Your task to perform on an android device: Open privacy settings Image 0: 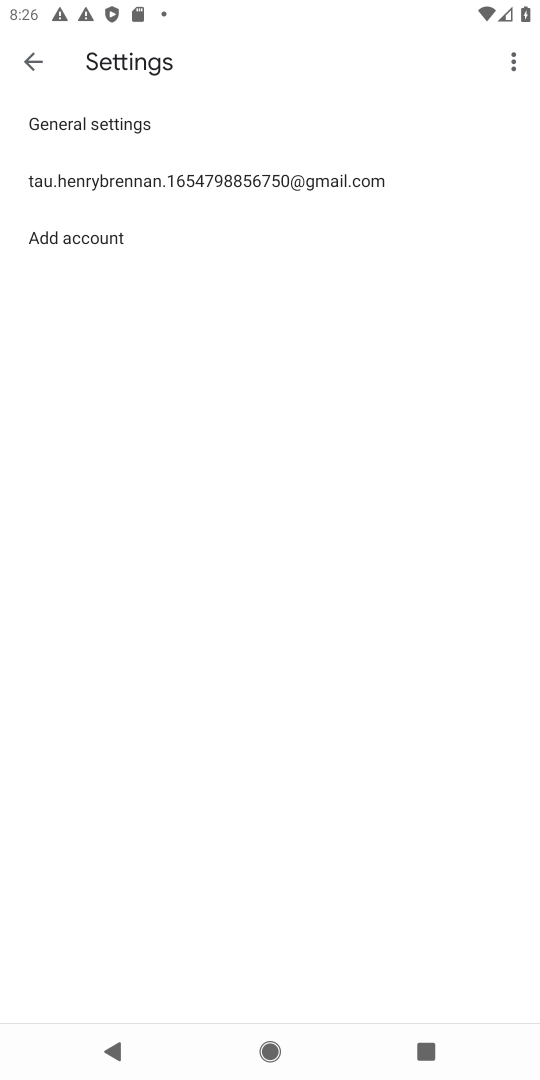
Step 0: press home button
Your task to perform on an android device: Open privacy settings Image 1: 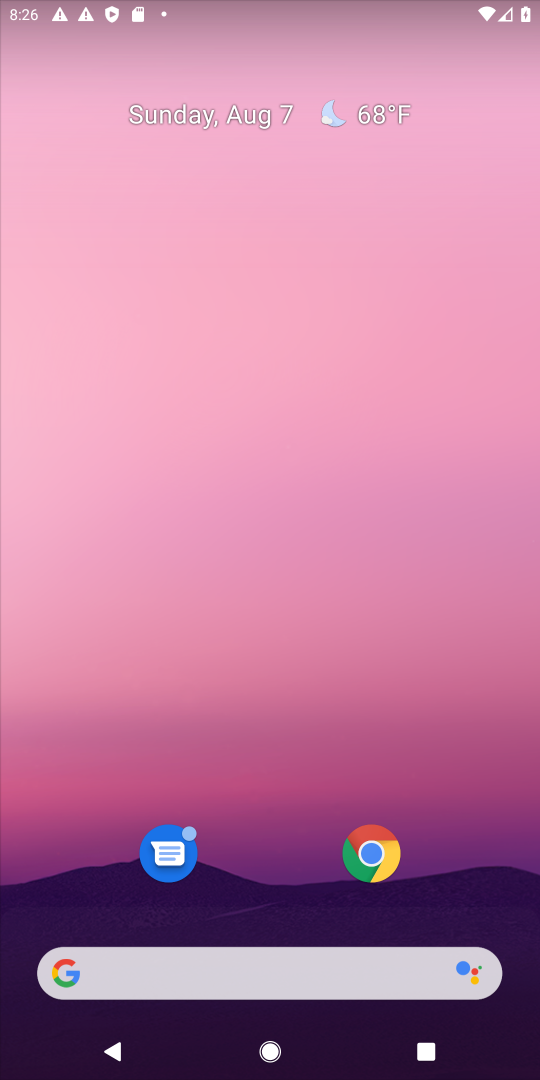
Step 1: drag from (296, 1018) to (534, 30)
Your task to perform on an android device: Open privacy settings Image 2: 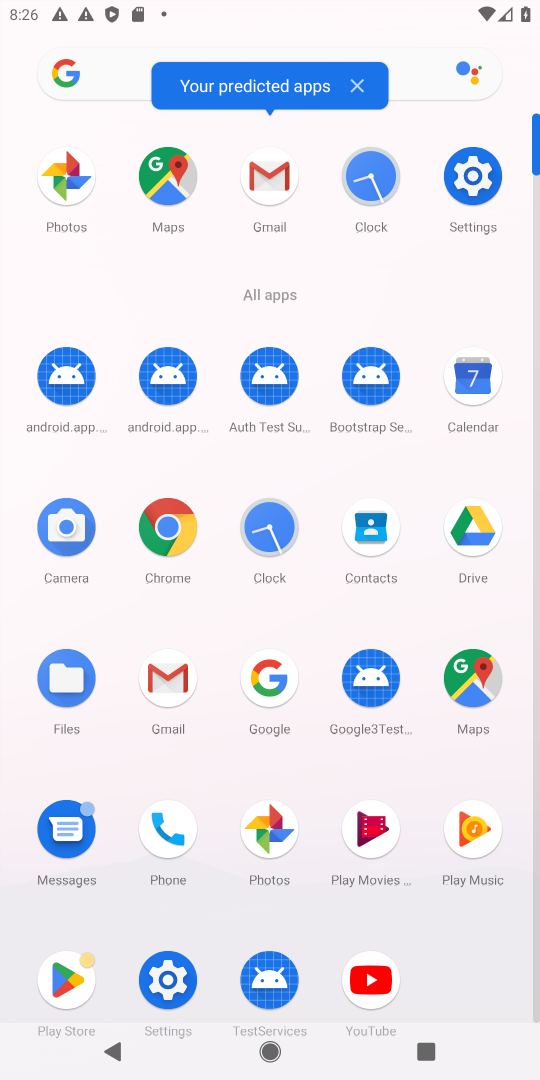
Step 2: click (463, 168)
Your task to perform on an android device: Open privacy settings Image 3: 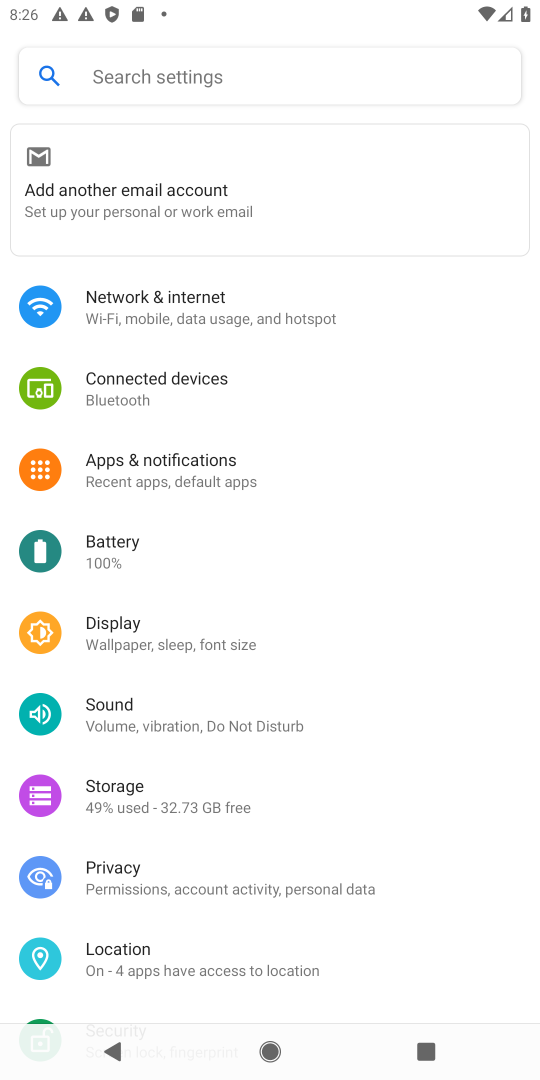
Step 3: click (173, 865)
Your task to perform on an android device: Open privacy settings Image 4: 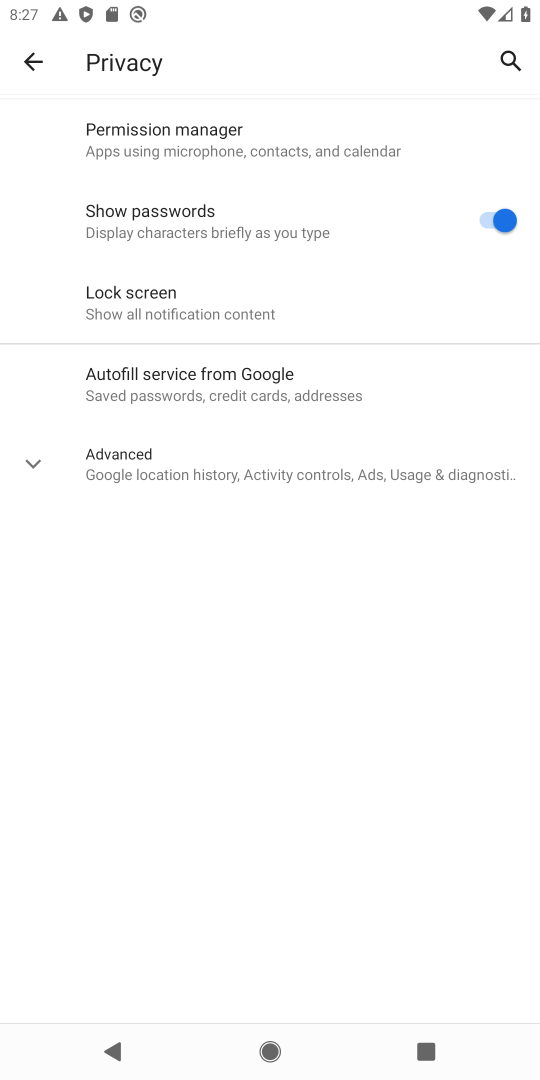
Step 4: task complete